Your task to perform on an android device: make emails show in primary in the gmail app Image 0: 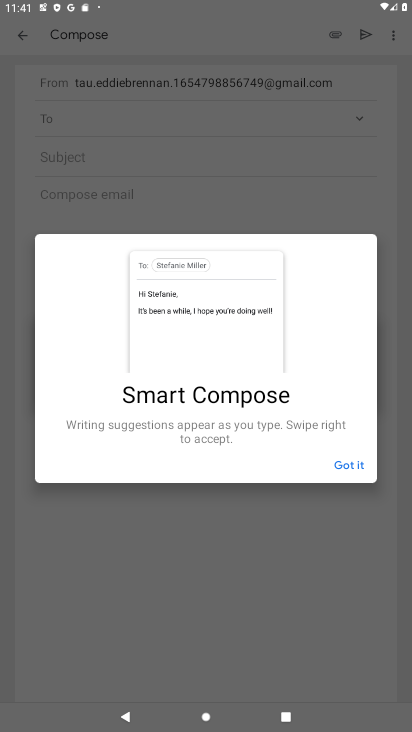
Step 0: press home button
Your task to perform on an android device: make emails show in primary in the gmail app Image 1: 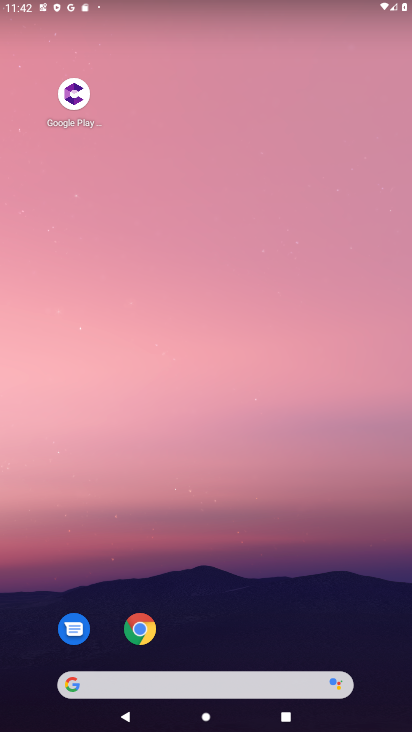
Step 1: drag from (276, 534) to (250, 47)
Your task to perform on an android device: make emails show in primary in the gmail app Image 2: 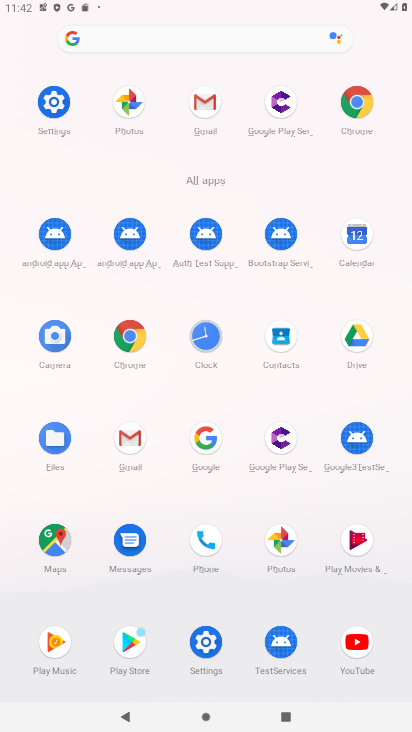
Step 2: click (213, 108)
Your task to perform on an android device: make emails show in primary in the gmail app Image 3: 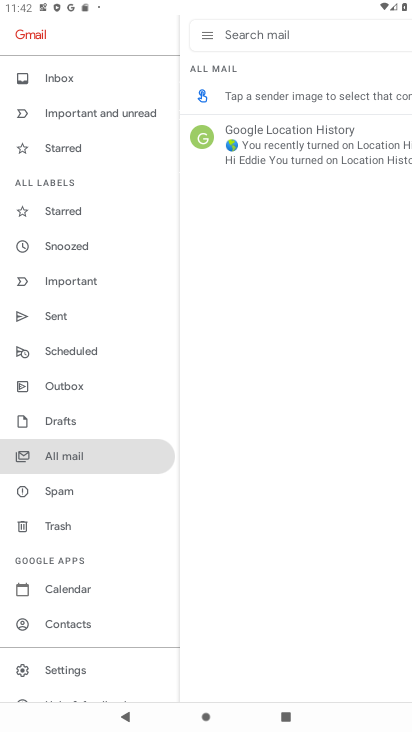
Step 3: click (76, 661)
Your task to perform on an android device: make emails show in primary in the gmail app Image 4: 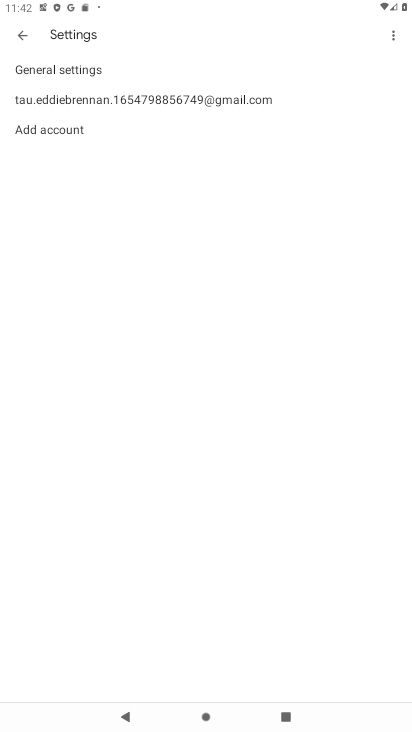
Step 4: click (136, 96)
Your task to perform on an android device: make emails show in primary in the gmail app Image 5: 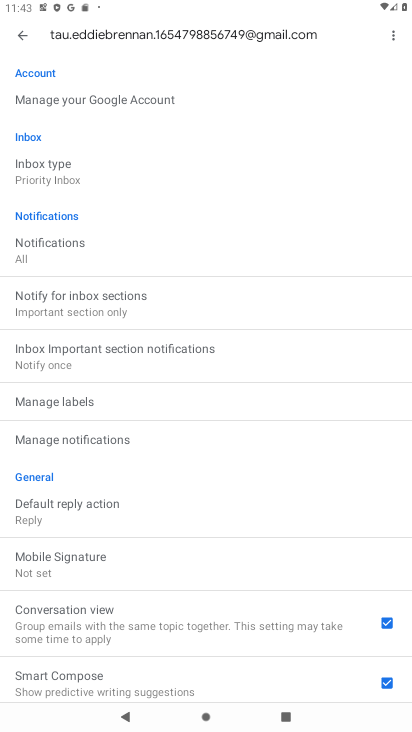
Step 5: click (69, 171)
Your task to perform on an android device: make emails show in primary in the gmail app Image 6: 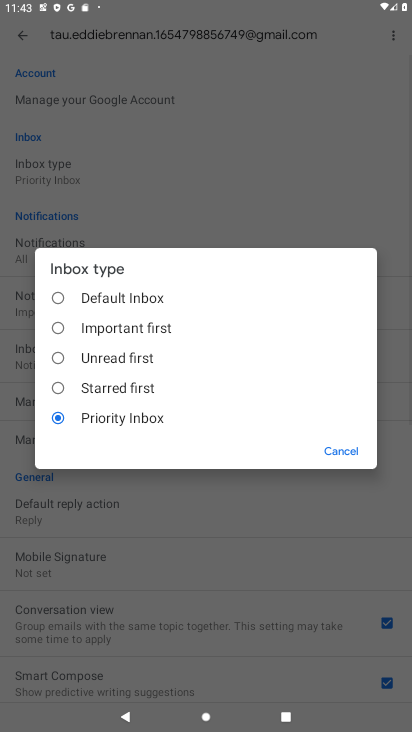
Step 6: click (106, 290)
Your task to perform on an android device: make emails show in primary in the gmail app Image 7: 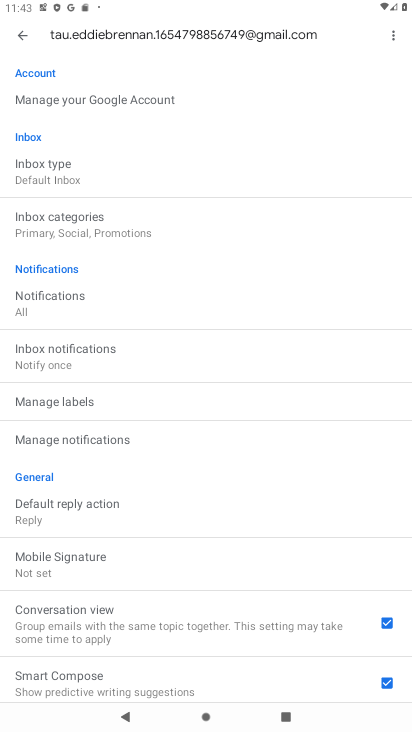
Step 7: click (92, 236)
Your task to perform on an android device: make emails show in primary in the gmail app Image 8: 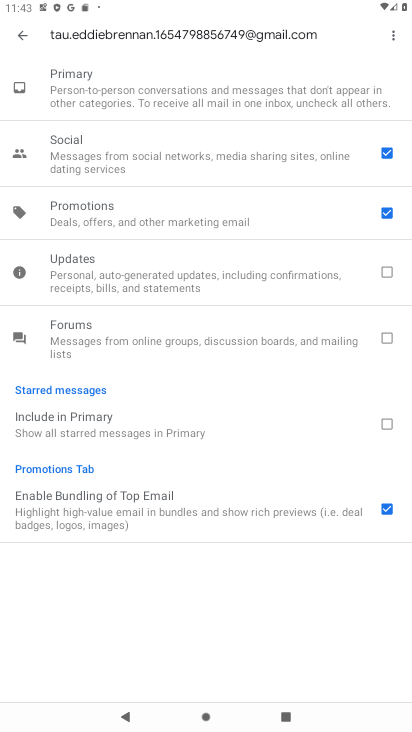
Step 8: task complete